Your task to perform on an android device: find photos in the google photos app Image 0: 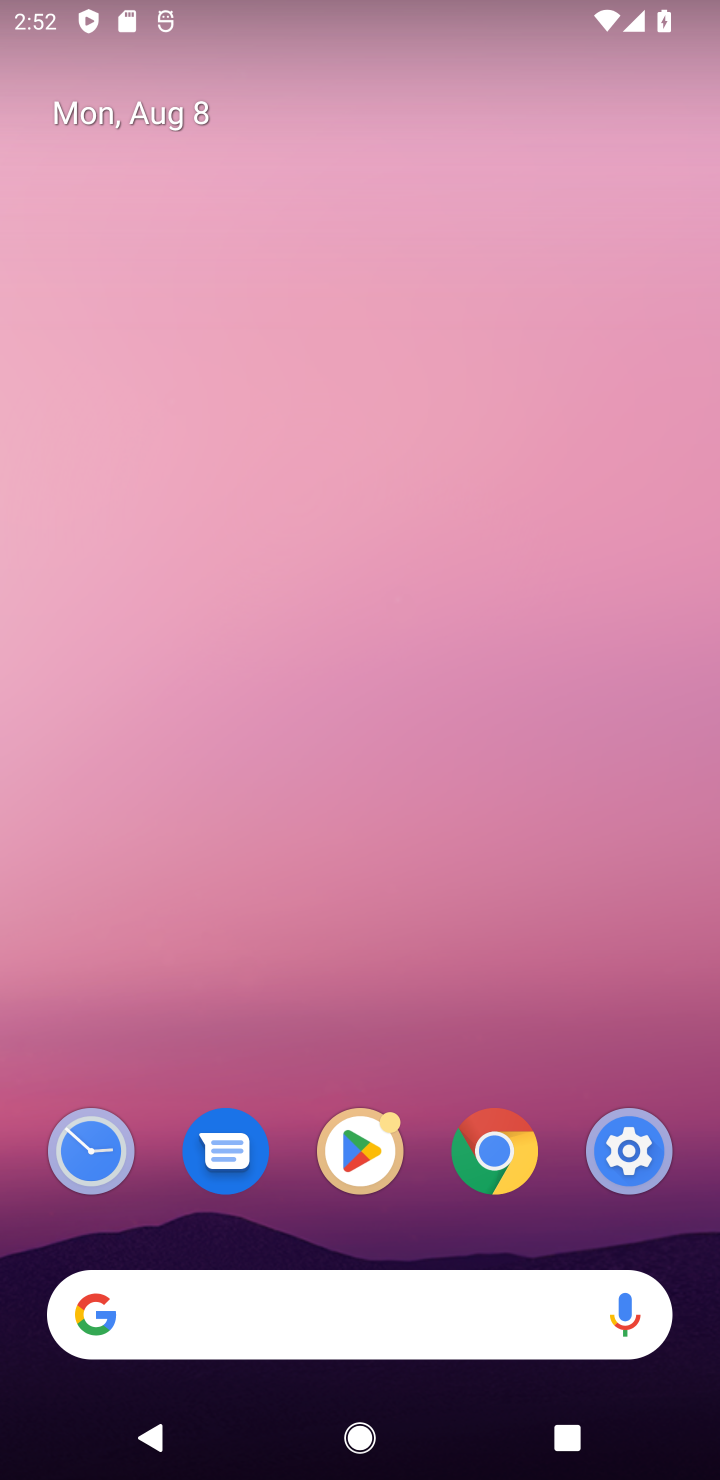
Step 0: drag from (387, 1237) to (360, 411)
Your task to perform on an android device: find photos in the google photos app Image 1: 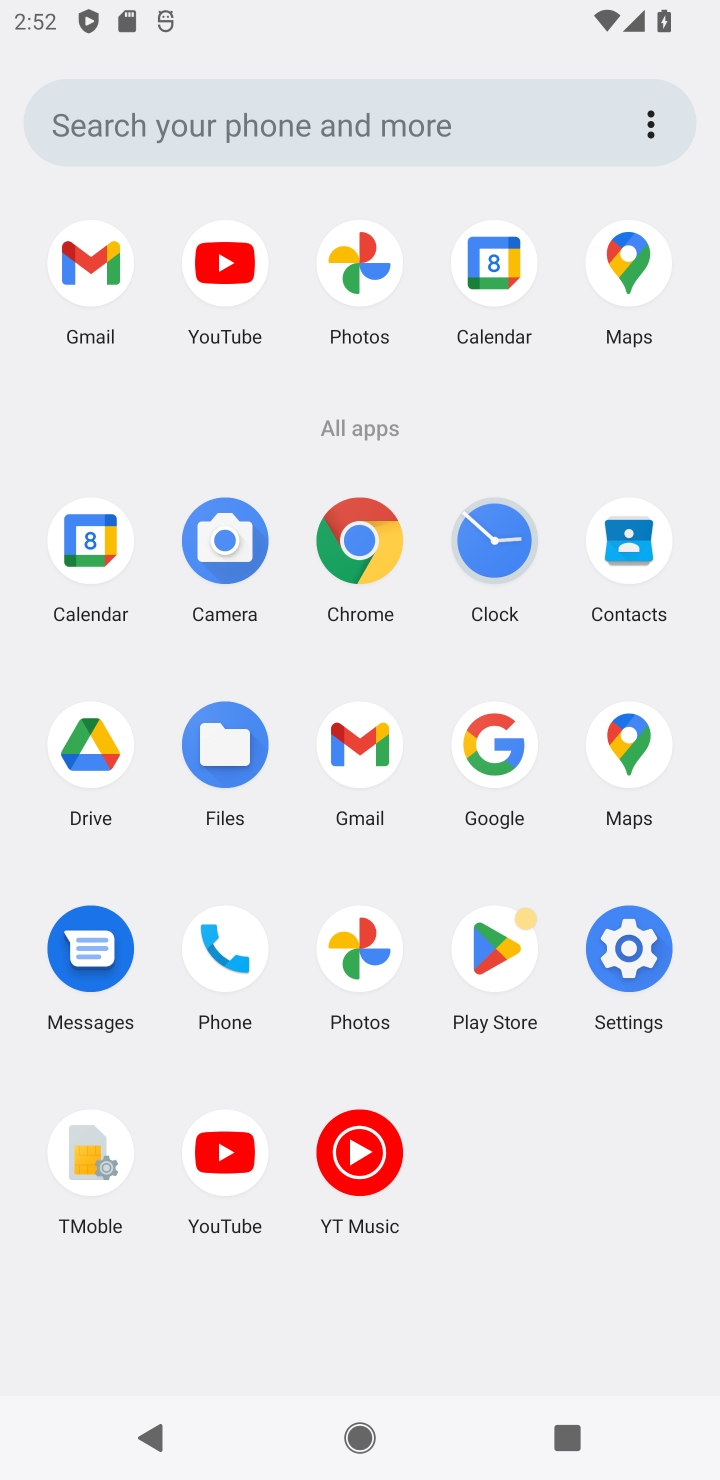
Step 1: click (360, 271)
Your task to perform on an android device: find photos in the google photos app Image 2: 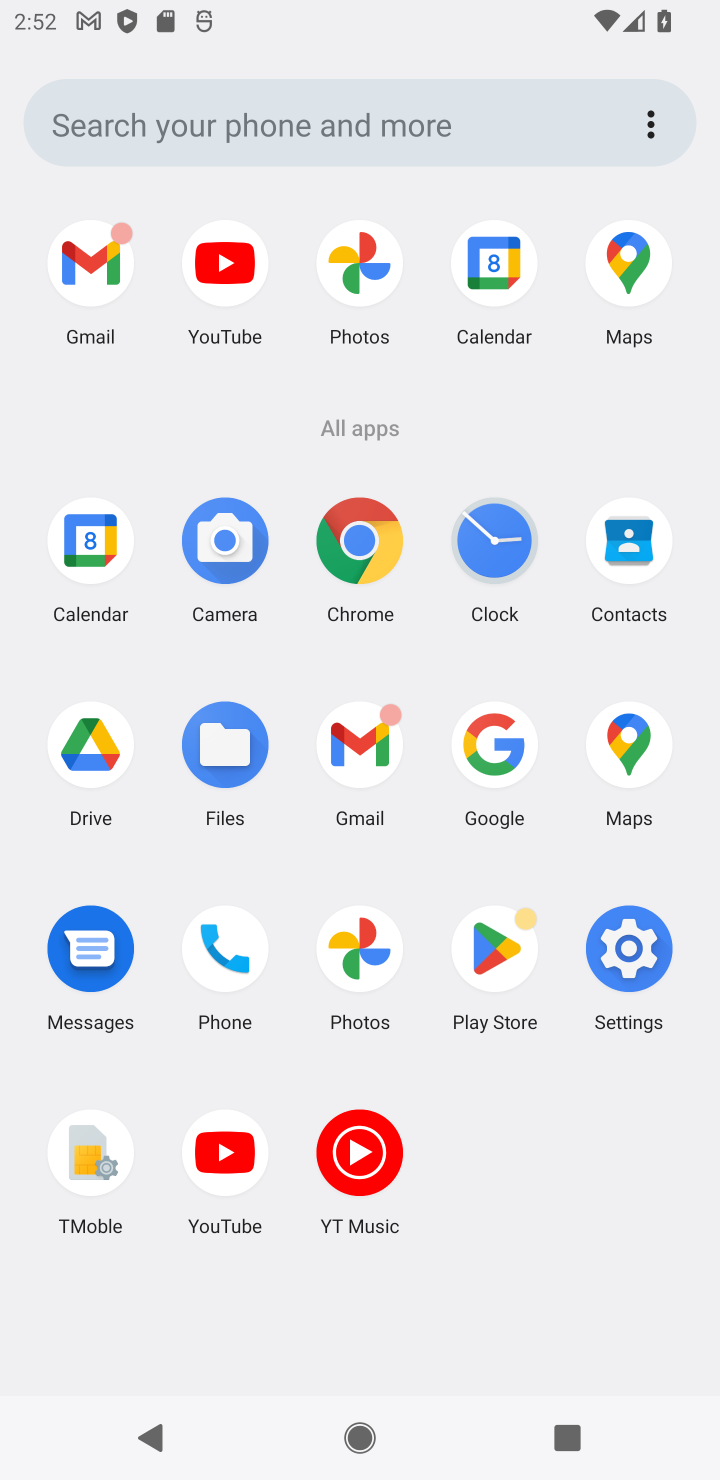
Step 2: click (365, 965)
Your task to perform on an android device: find photos in the google photos app Image 3: 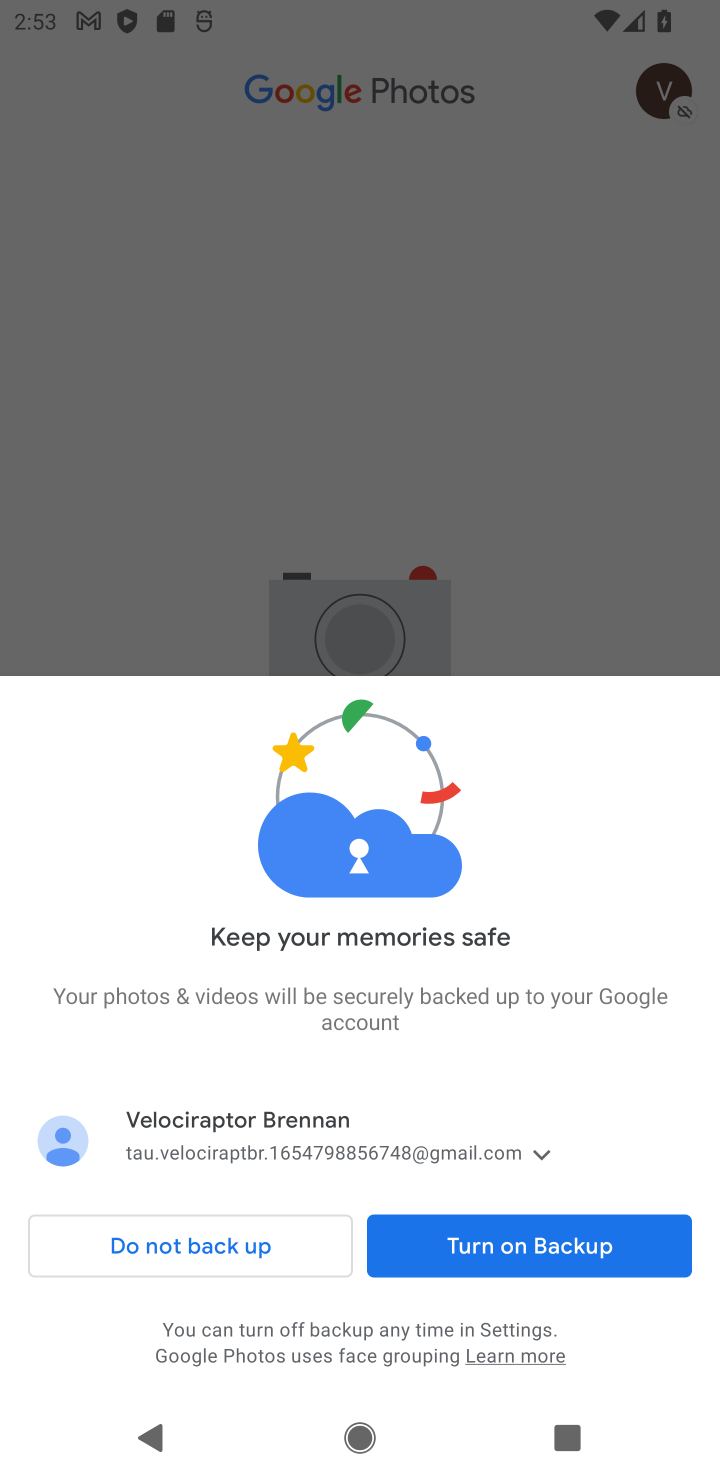
Step 3: click (297, 1249)
Your task to perform on an android device: find photos in the google photos app Image 4: 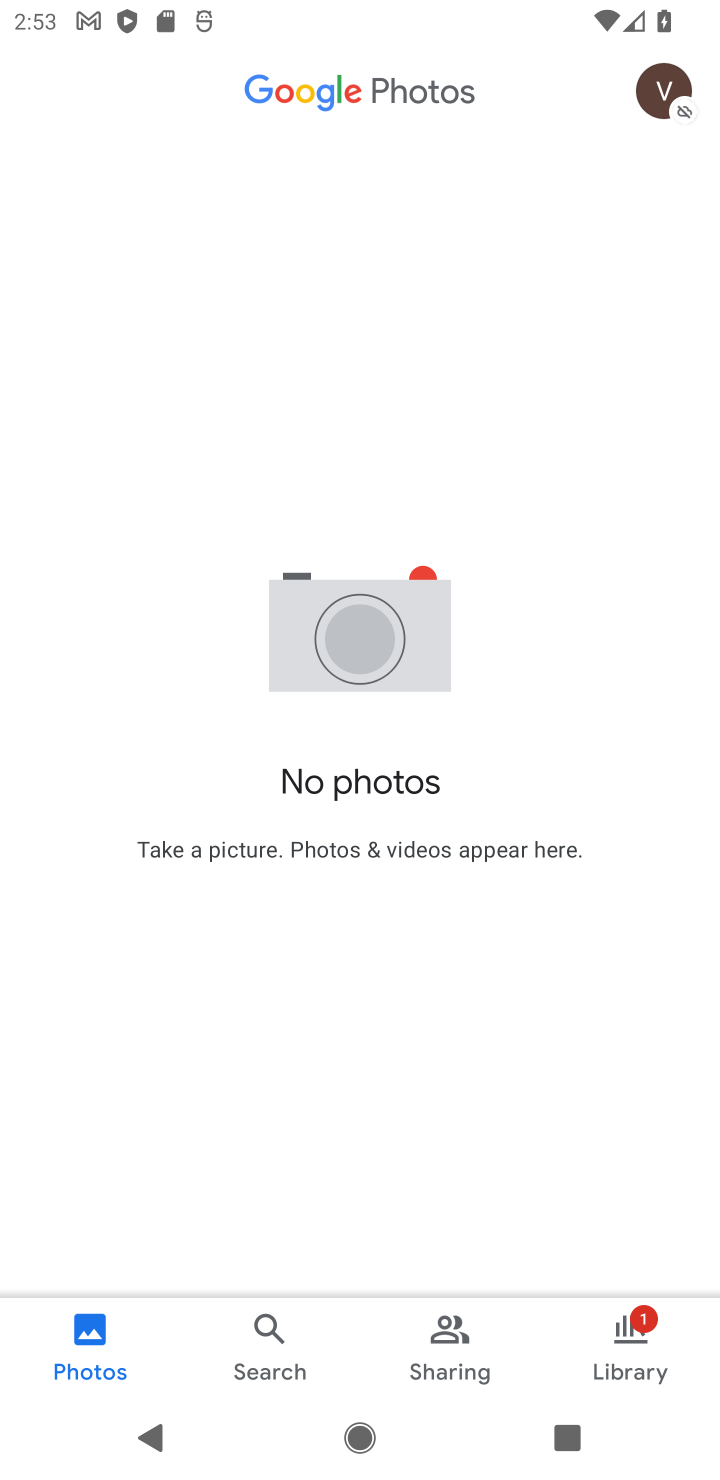
Step 4: task complete